Your task to perform on an android device: Open eBay Image 0: 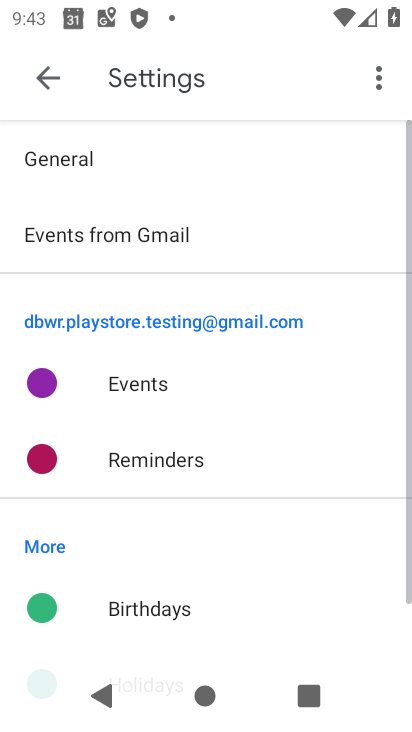
Step 0: press home button
Your task to perform on an android device: Open eBay Image 1: 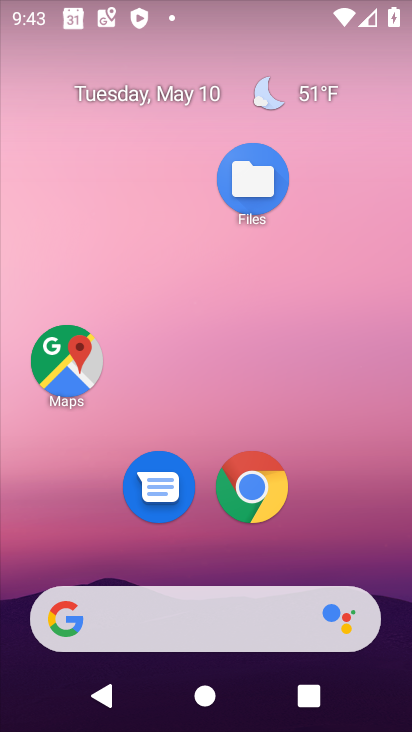
Step 1: drag from (221, 549) to (237, 74)
Your task to perform on an android device: Open eBay Image 2: 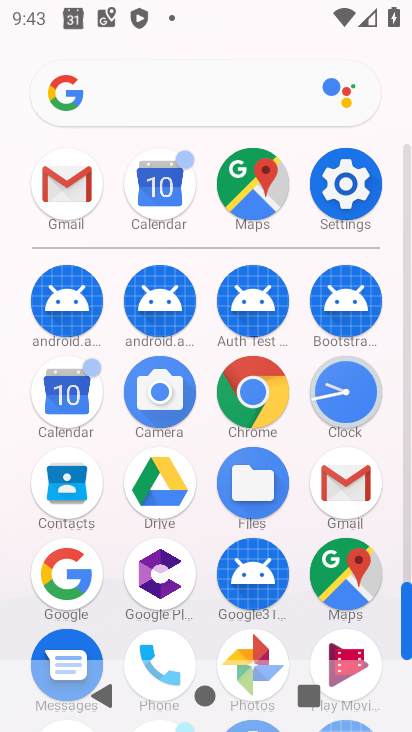
Step 2: click (71, 574)
Your task to perform on an android device: Open eBay Image 3: 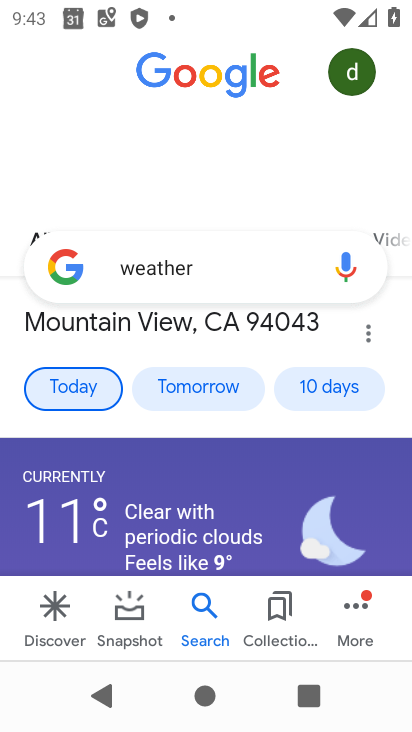
Step 3: click (206, 269)
Your task to perform on an android device: Open eBay Image 4: 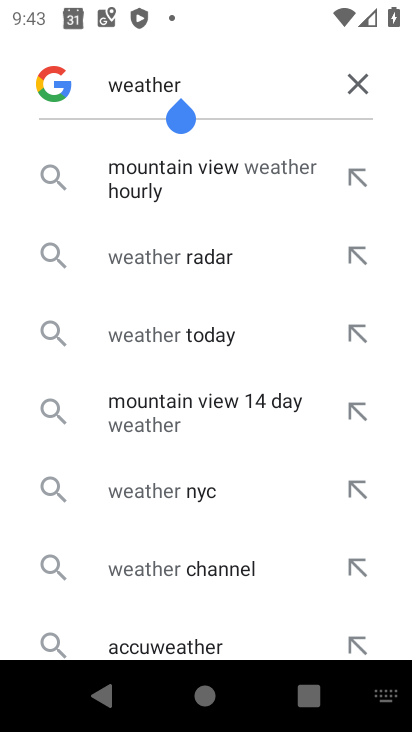
Step 4: click (359, 74)
Your task to perform on an android device: Open eBay Image 5: 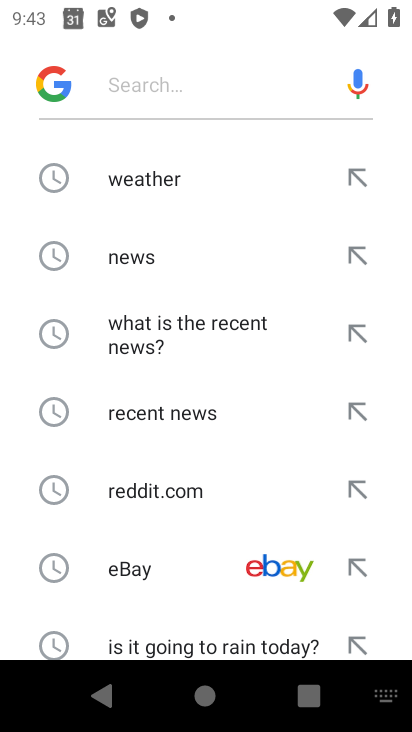
Step 5: click (152, 566)
Your task to perform on an android device: Open eBay Image 6: 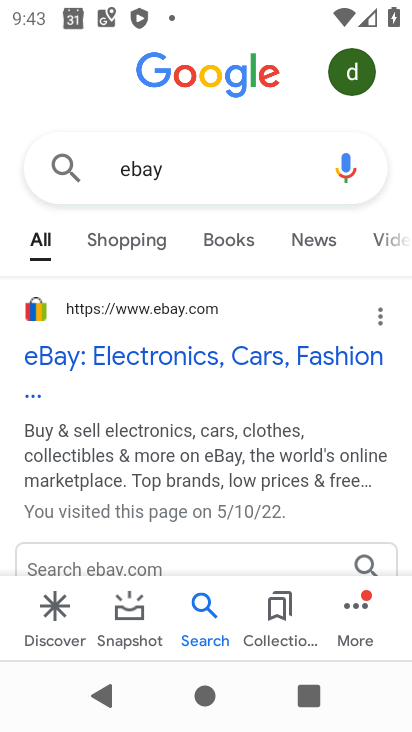
Step 6: click (178, 357)
Your task to perform on an android device: Open eBay Image 7: 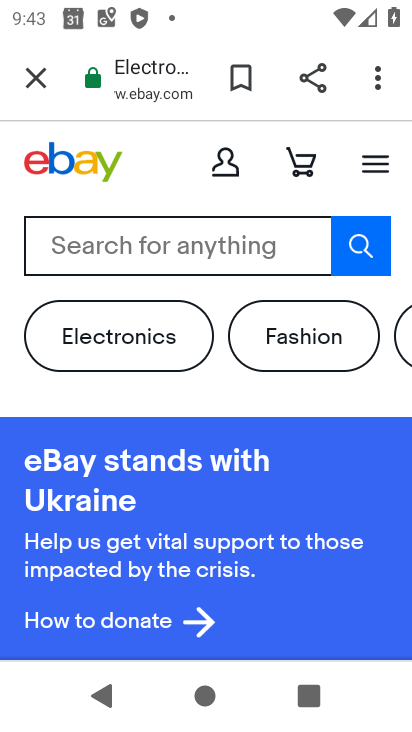
Step 7: task complete